Your task to perform on an android device: Toggle the flashlight Image 0: 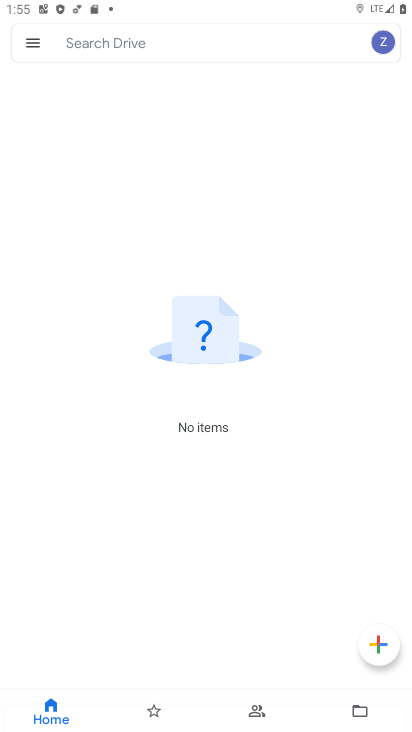
Step 0: press home button
Your task to perform on an android device: Toggle the flashlight Image 1: 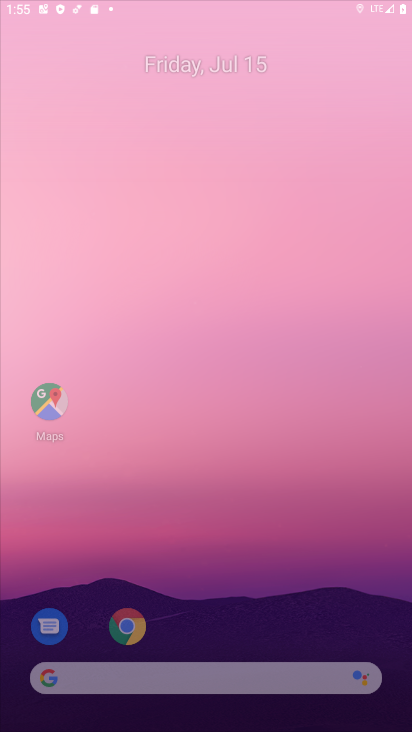
Step 1: drag from (366, 638) to (254, 52)
Your task to perform on an android device: Toggle the flashlight Image 2: 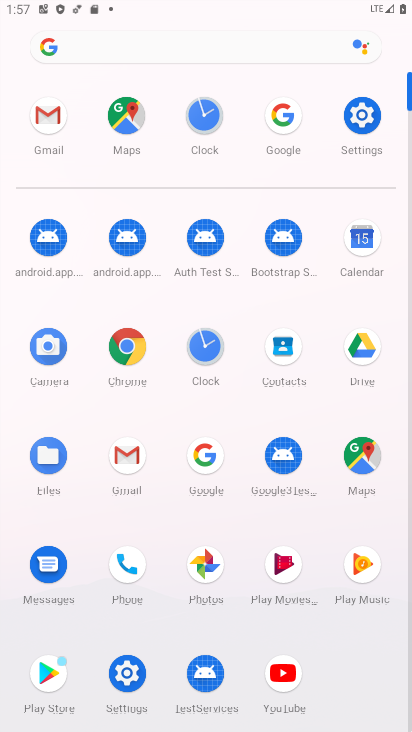
Step 2: click (131, 668)
Your task to perform on an android device: Toggle the flashlight Image 3: 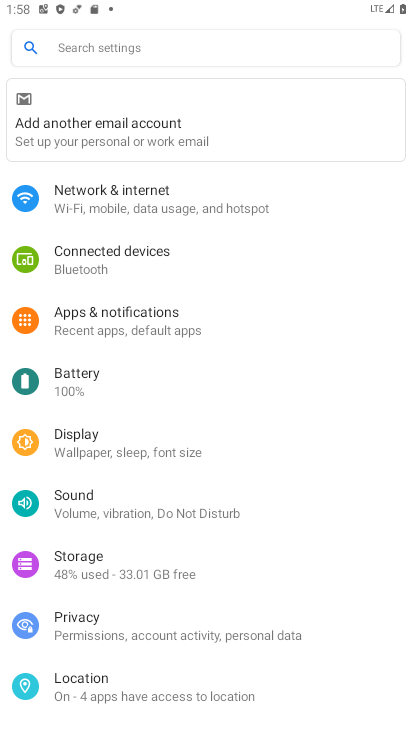
Step 3: press home button
Your task to perform on an android device: Toggle the flashlight Image 4: 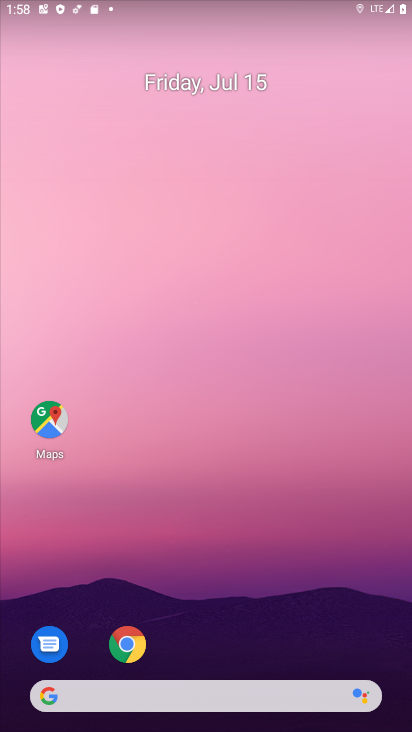
Step 4: drag from (271, 79) to (261, 10)
Your task to perform on an android device: Toggle the flashlight Image 5: 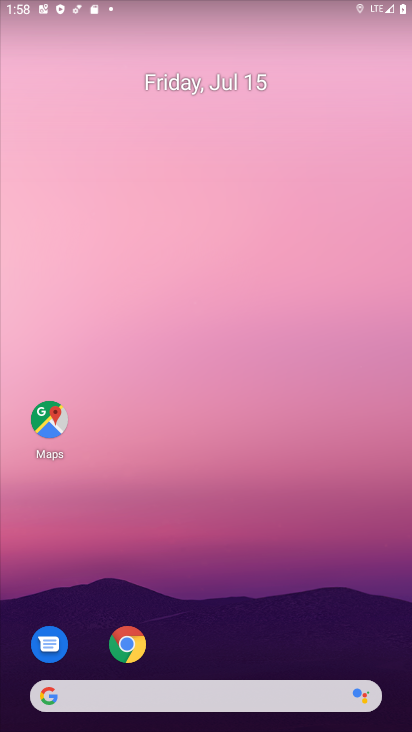
Step 5: drag from (380, 669) to (290, 35)
Your task to perform on an android device: Toggle the flashlight Image 6: 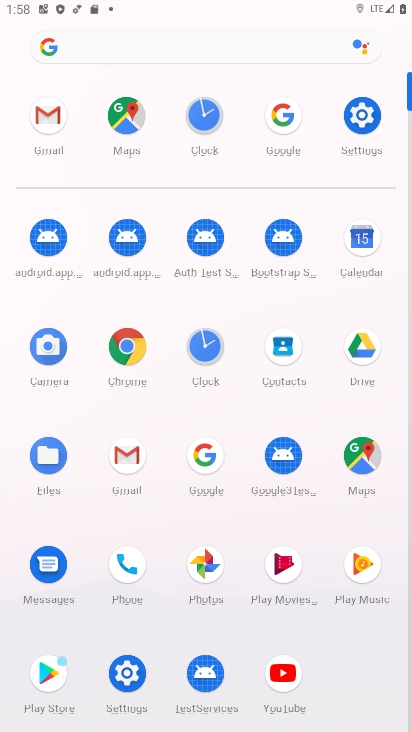
Step 6: click (341, 114)
Your task to perform on an android device: Toggle the flashlight Image 7: 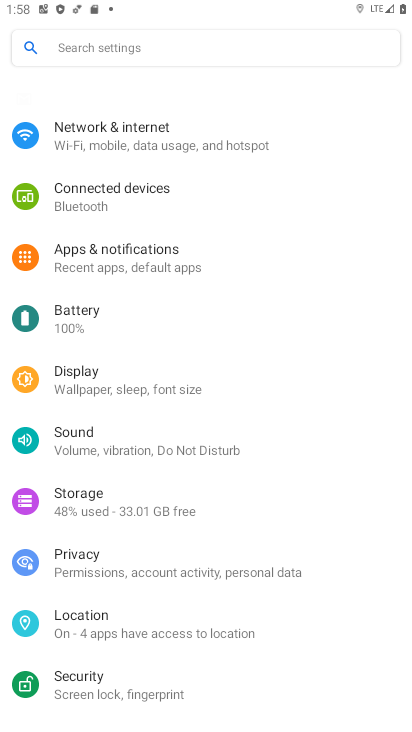
Step 7: task complete